Your task to perform on an android device: turn on location history Image 0: 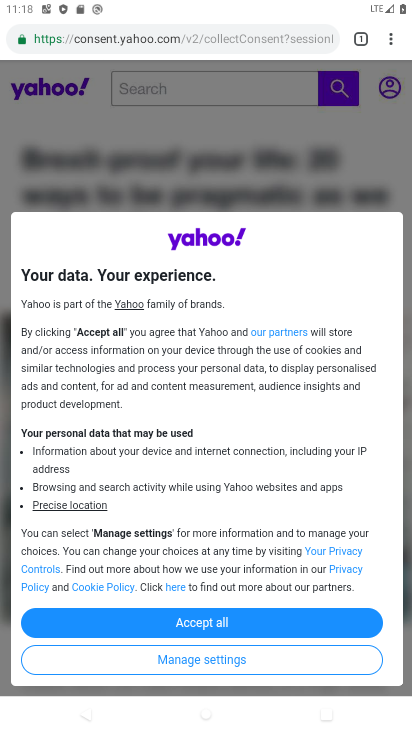
Step 0: press home button
Your task to perform on an android device: turn on location history Image 1: 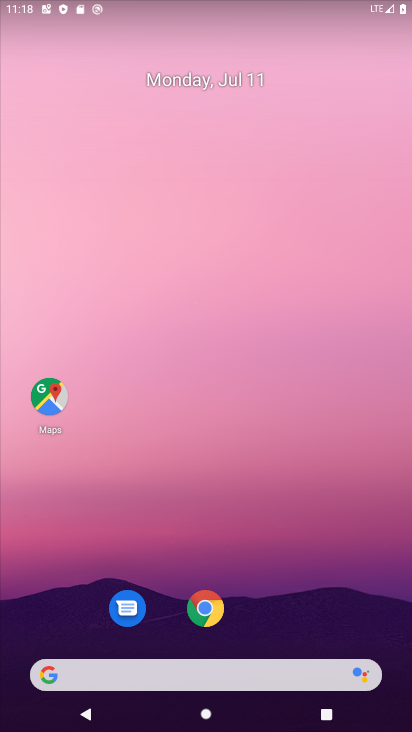
Step 1: drag from (298, 259) to (335, 162)
Your task to perform on an android device: turn on location history Image 2: 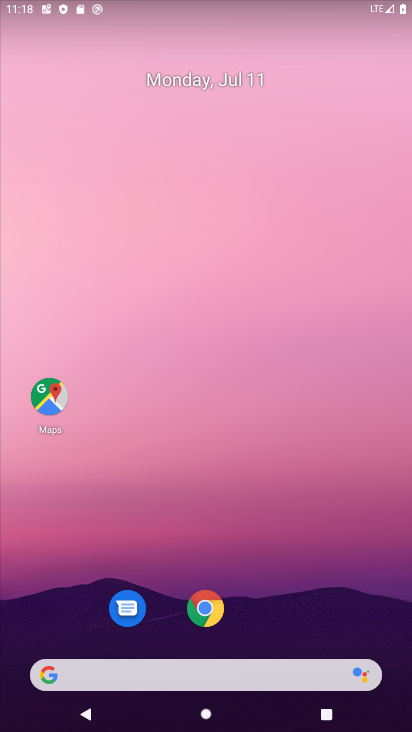
Step 2: drag from (38, 692) to (353, 3)
Your task to perform on an android device: turn on location history Image 3: 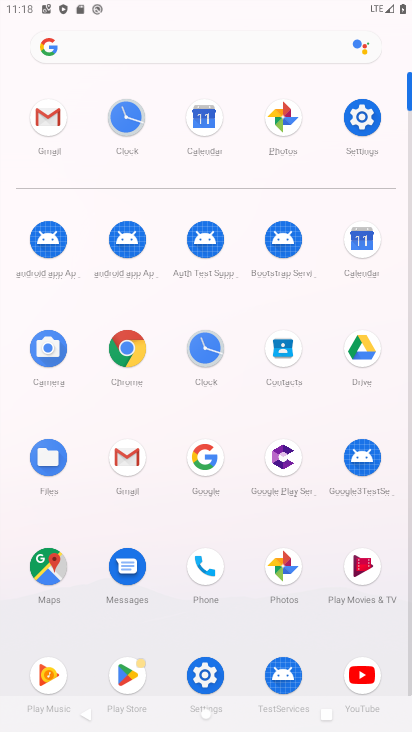
Step 3: click (201, 679)
Your task to perform on an android device: turn on location history Image 4: 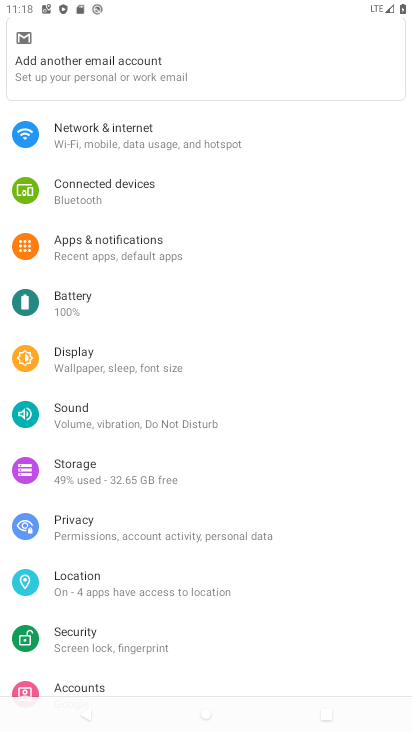
Step 4: click (101, 585)
Your task to perform on an android device: turn on location history Image 5: 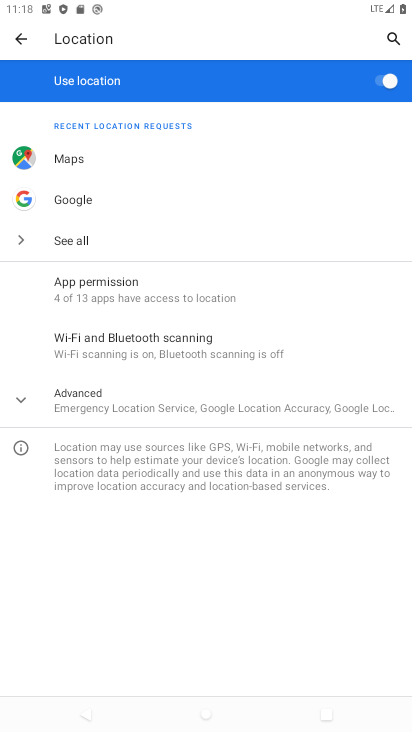
Step 5: click (127, 395)
Your task to perform on an android device: turn on location history Image 6: 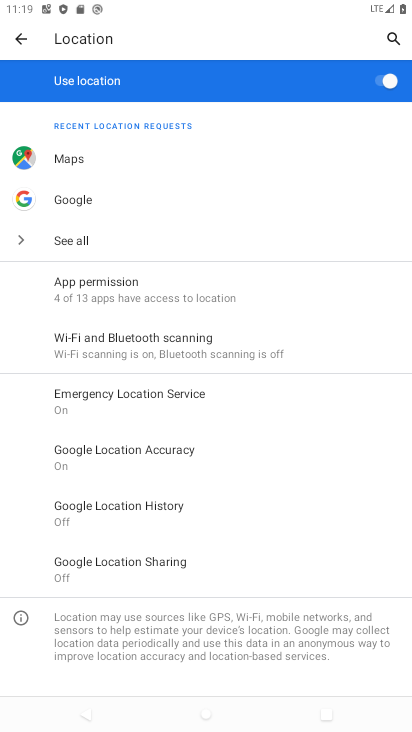
Step 6: click (135, 512)
Your task to perform on an android device: turn on location history Image 7: 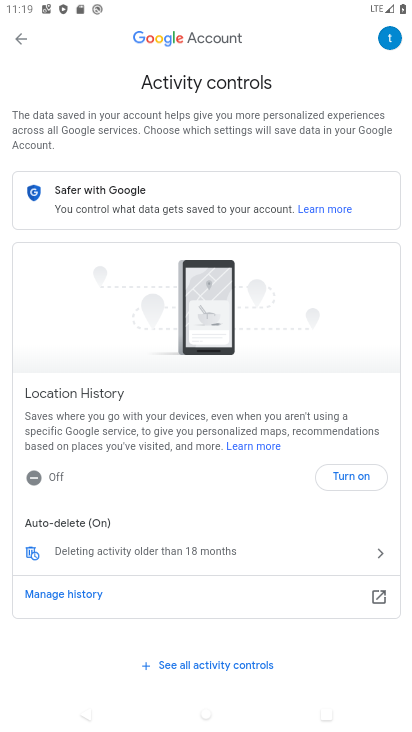
Step 7: click (54, 476)
Your task to perform on an android device: turn on location history Image 8: 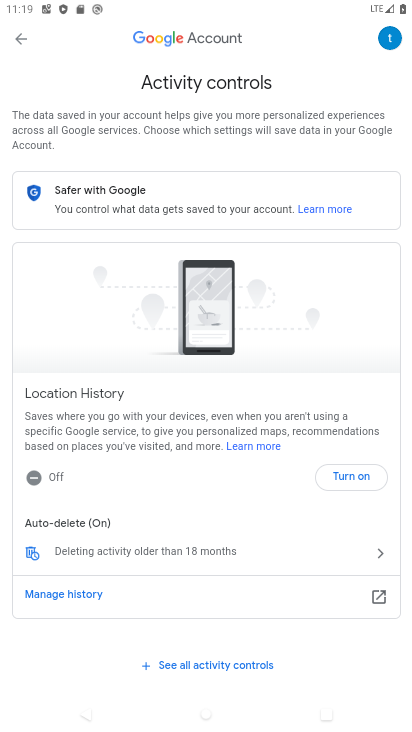
Step 8: click (34, 476)
Your task to perform on an android device: turn on location history Image 9: 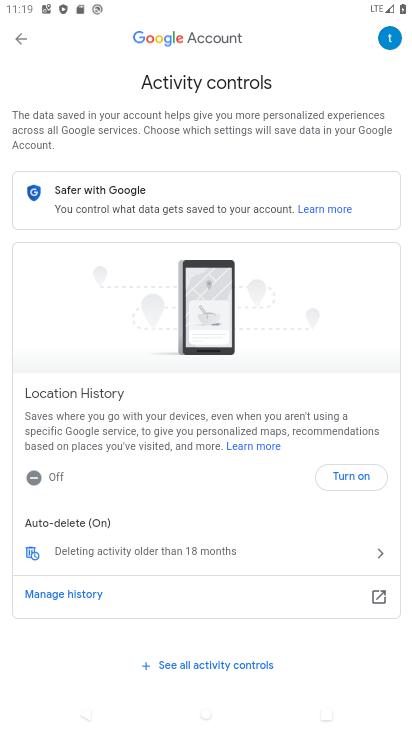
Step 9: click (343, 478)
Your task to perform on an android device: turn on location history Image 10: 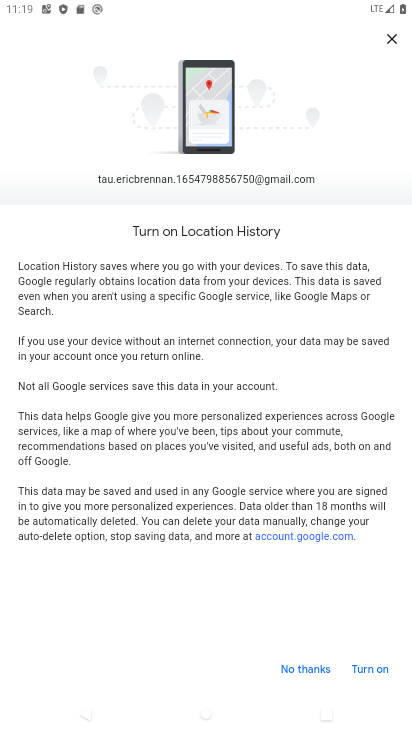
Step 10: click (368, 669)
Your task to perform on an android device: turn on location history Image 11: 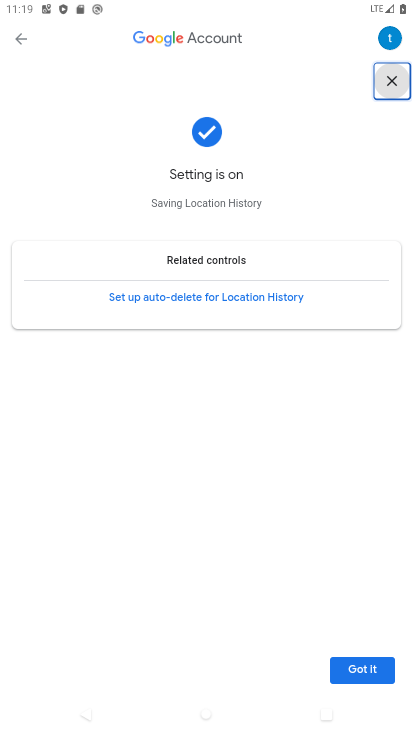
Step 11: click (354, 668)
Your task to perform on an android device: turn on location history Image 12: 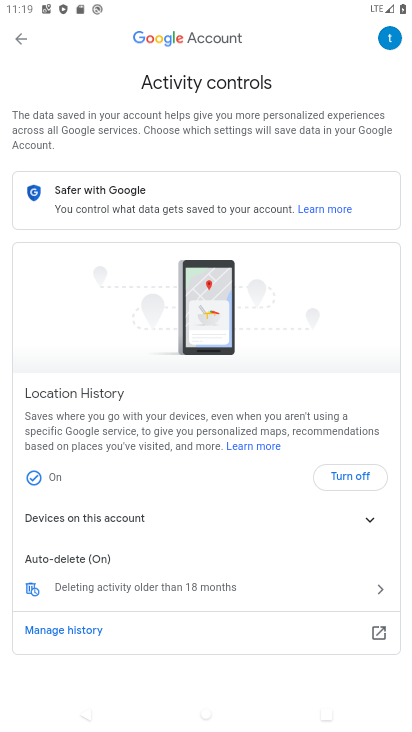
Step 12: task complete